Your task to perform on an android device: When is my next meeting? Image 0: 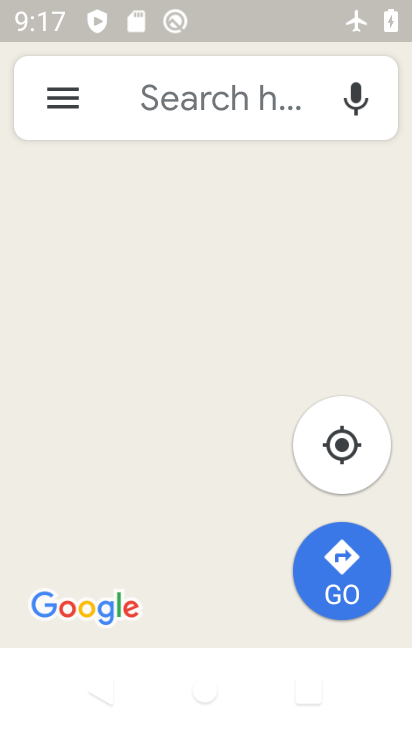
Step 0: press home button
Your task to perform on an android device: When is my next meeting? Image 1: 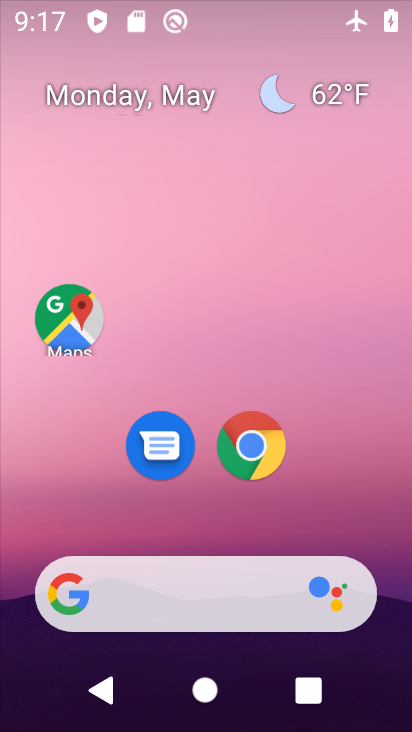
Step 1: drag from (389, 632) to (263, 1)
Your task to perform on an android device: When is my next meeting? Image 2: 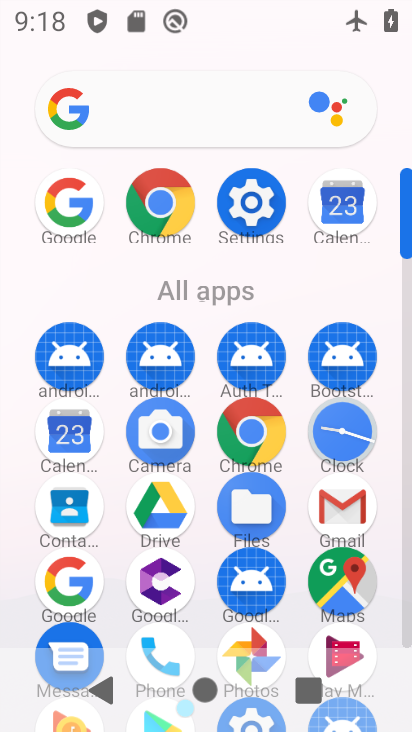
Step 2: click (84, 429)
Your task to perform on an android device: When is my next meeting? Image 3: 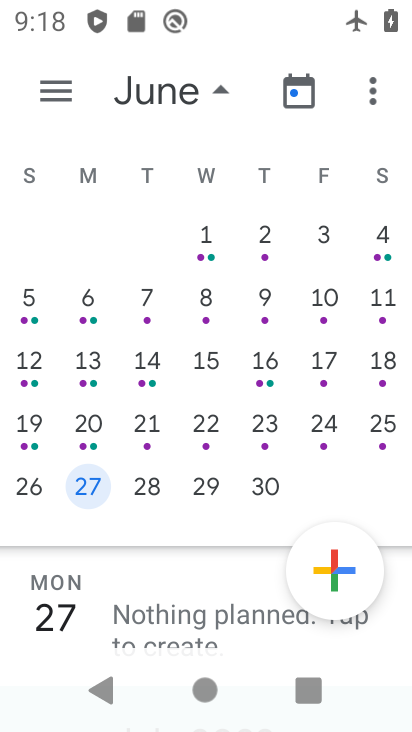
Step 3: task complete